Your task to perform on an android device: add a contact in the contacts app Image 0: 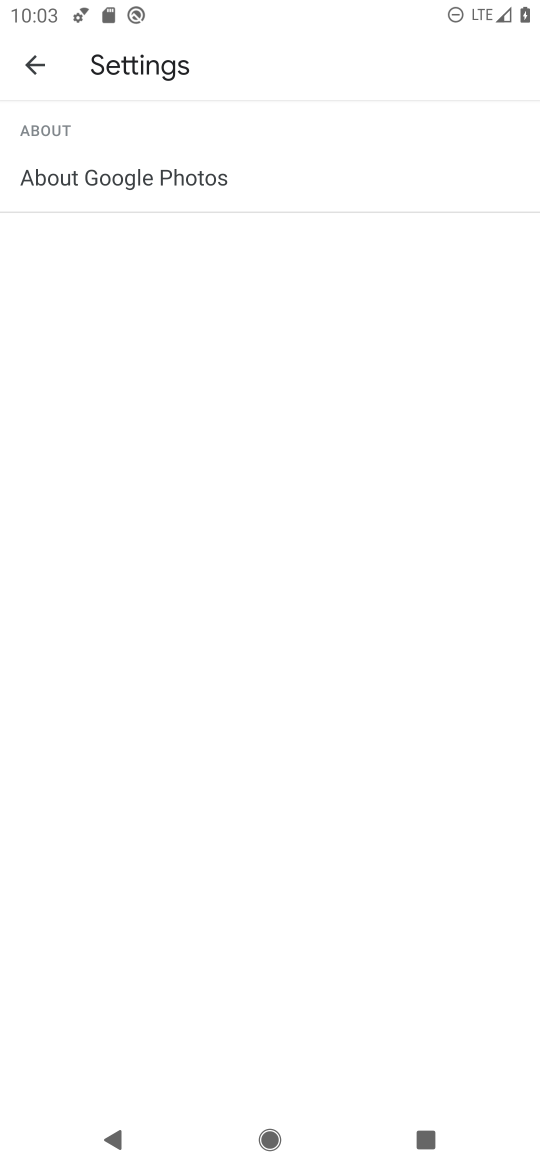
Step 0: press home button
Your task to perform on an android device: add a contact in the contacts app Image 1: 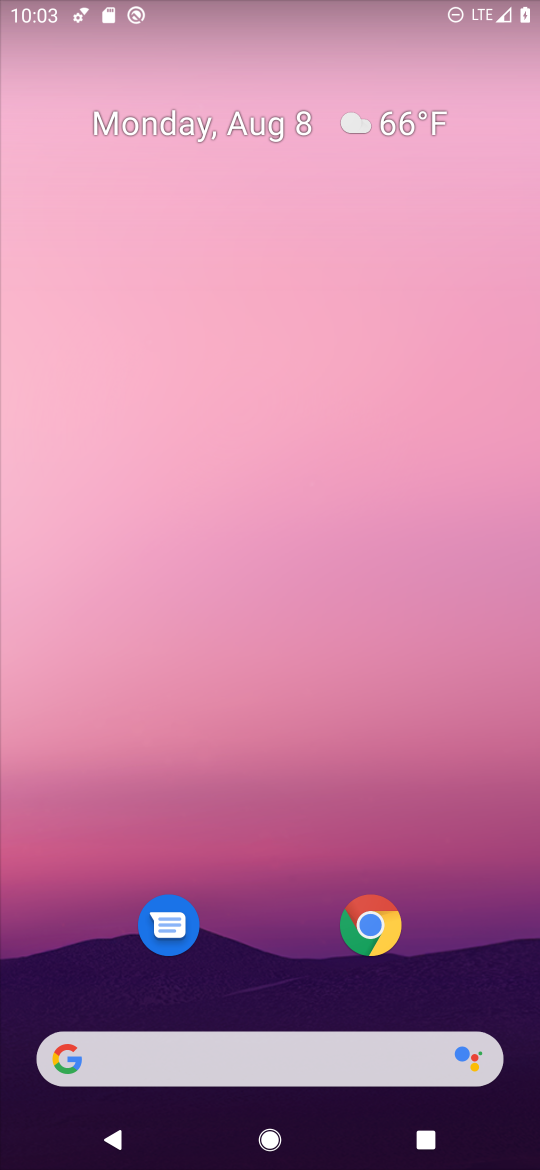
Step 1: drag from (262, 887) to (252, 295)
Your task to perform on an android device: add a contact in the contacts app Image 2: 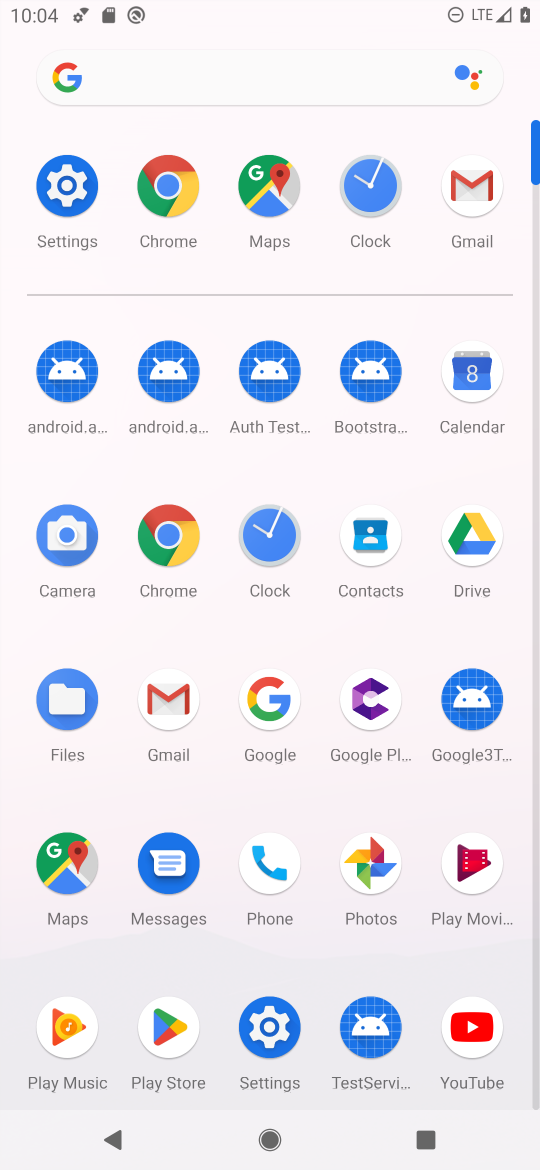
Step 2: click (384, 544)
Your task to perform on an android device: add a contact in the contacts app Image 3: 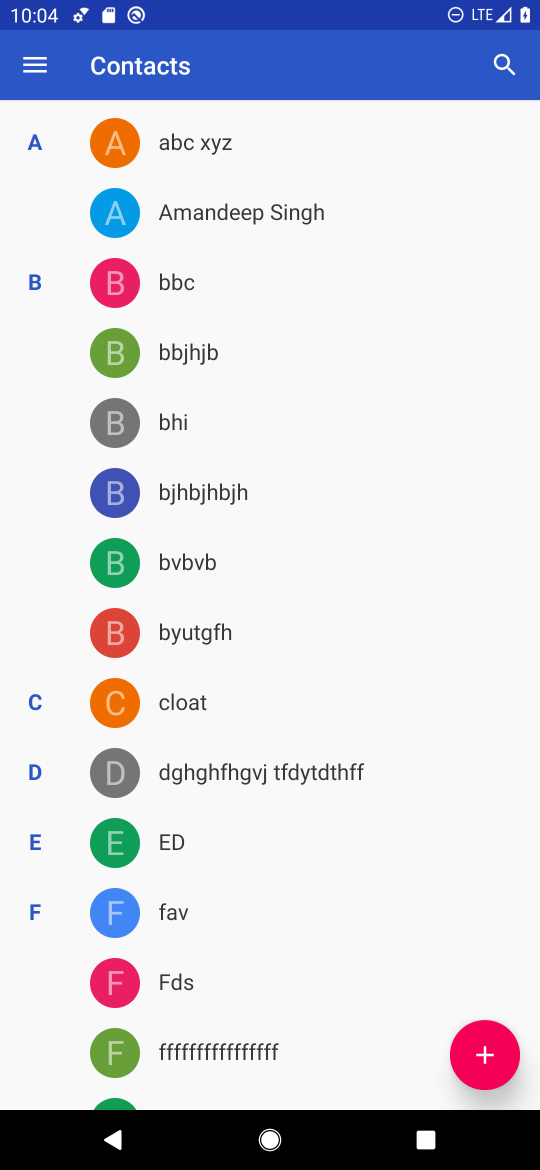
Step 3: click (502, 1047)
Your task to perform on an android device: add a contact in the contacts app Image 4: 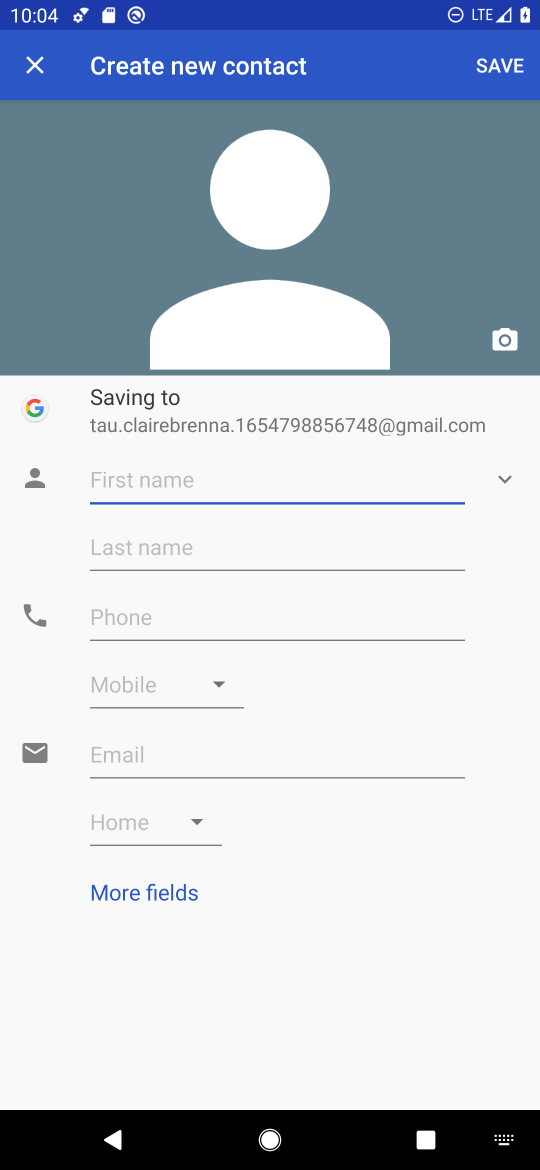
Step 4: type "dom"
Your task to perform on an android device: add a contact in the contacts app Image 5: 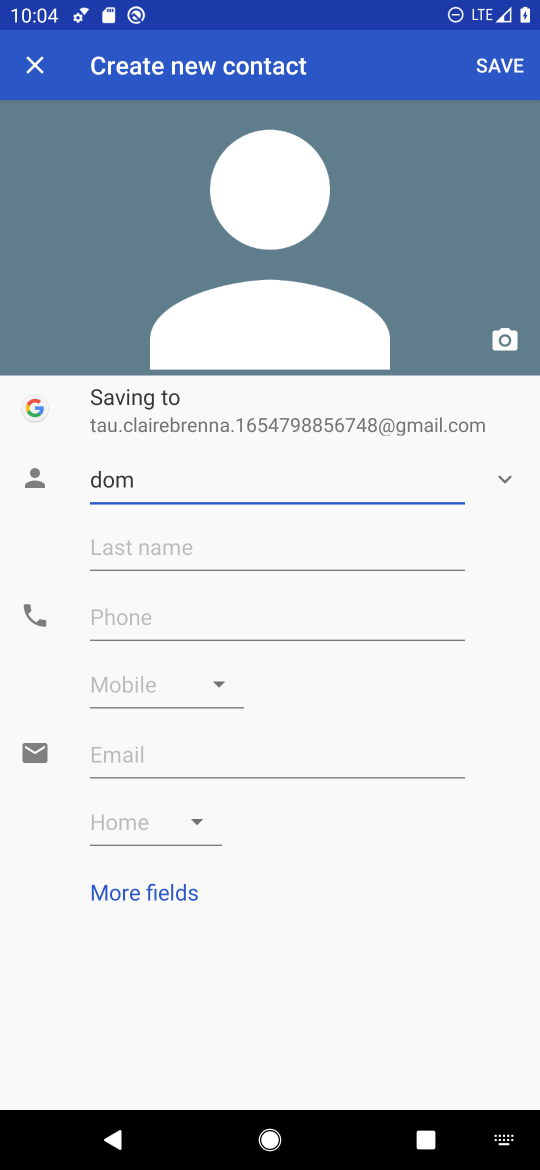
Step 5: click (494, 68)
Your task to perform on an android device: add a contact in the contacts app Image 6: 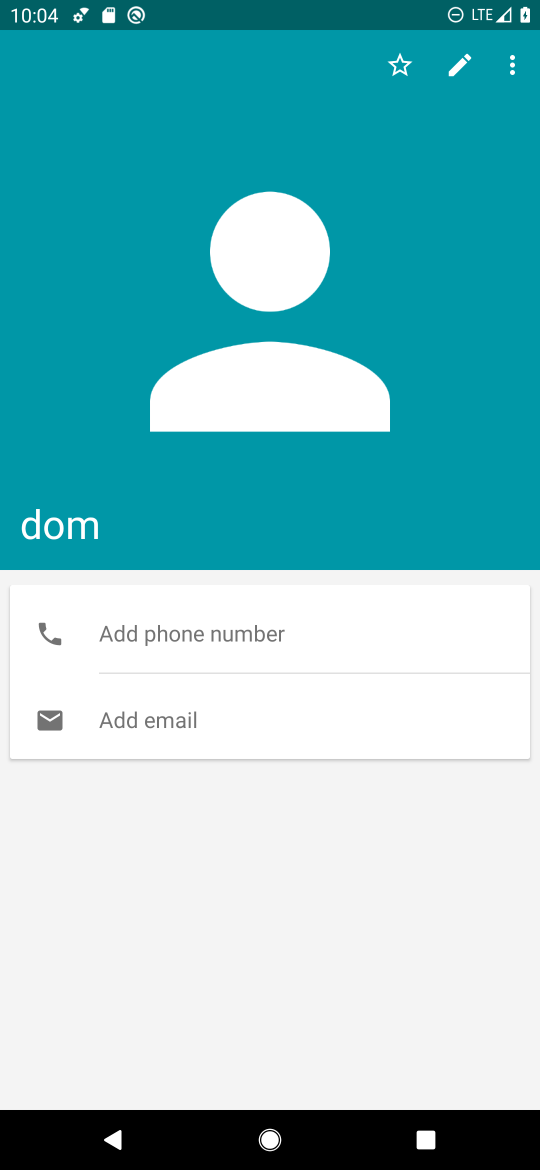
Step 6: task complete